Your task to perform on an android device: open chrome privacy settings Image 0: 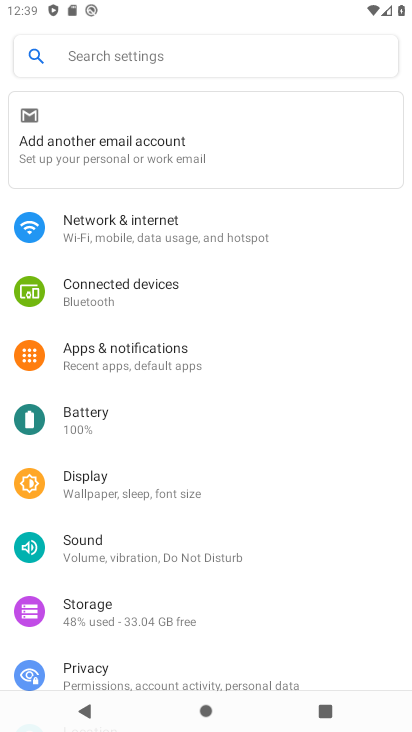
Step 0: press back button
Your task to perform on an android device: open chrome privacy settings Image 1: 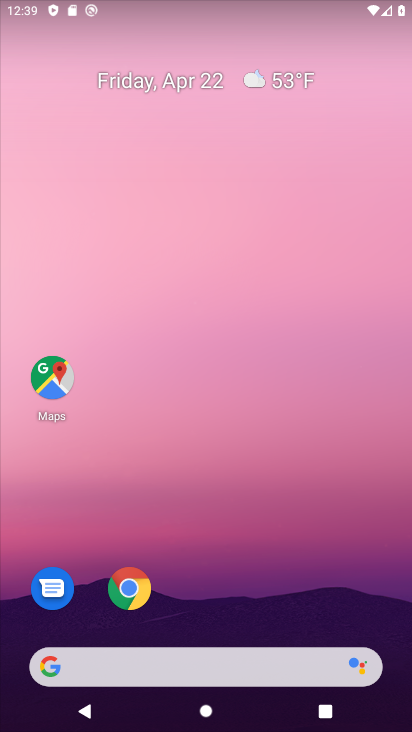
Step 1: click (143, 589)
Your task to perform on an android device: open chrome privacy settings Image 2: 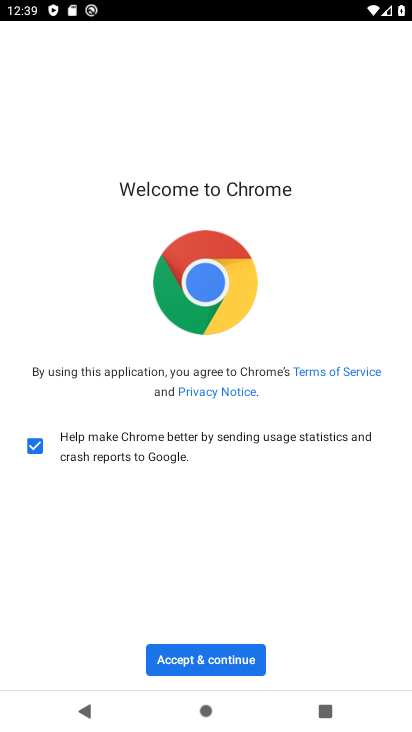
Step 2: click (193, 661)
Your task to perform on an android device: open chrome privacy settings Image 3: 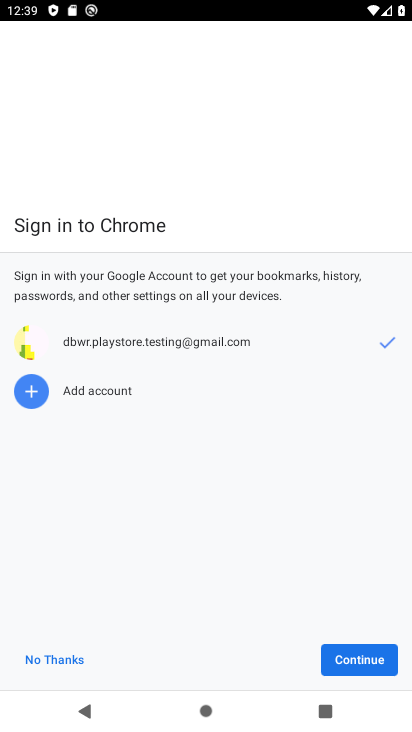
Step 3: click (361, 649)
Your task to perform on an android device: open chrome privacy settings Image 4: 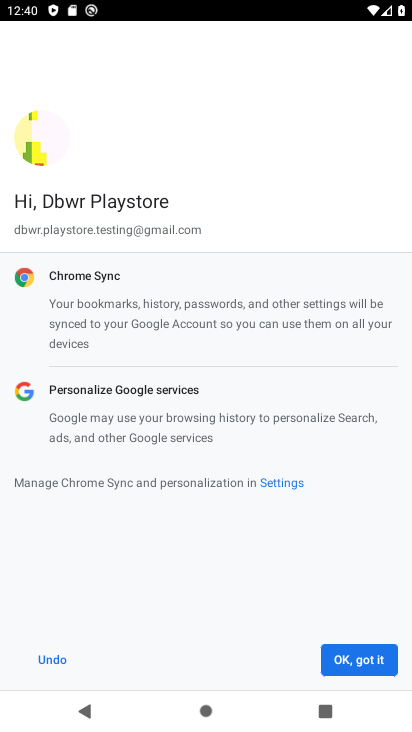
Step 4: click (358, 657)
Your task to perform on an android device: open chrome privacy settings Image 5: 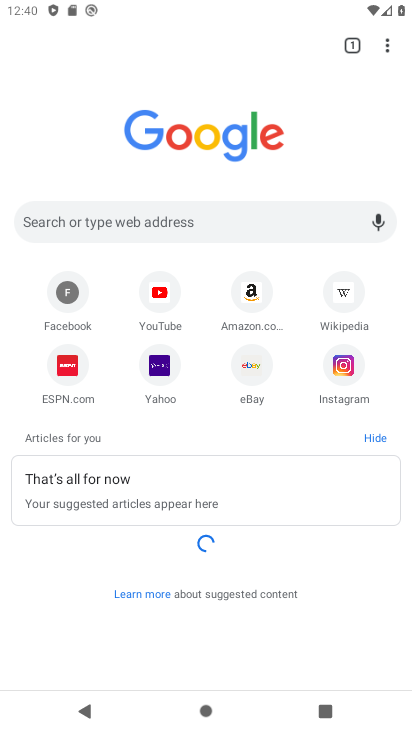
Step 5: drag from (386, 51) to (257, 391)
Your task to perform on an android device: open chrome privacy settings Image 6: 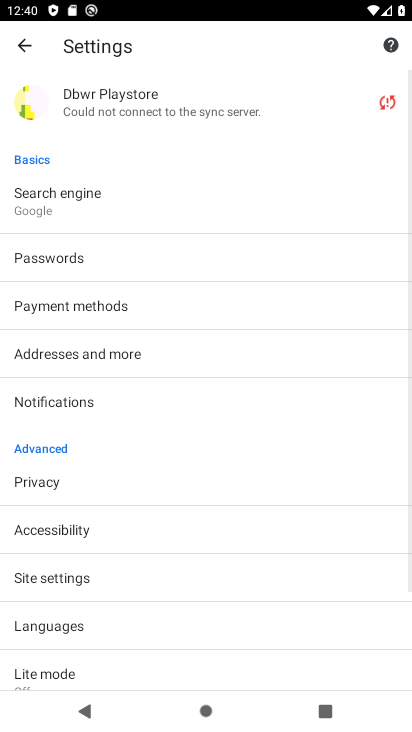
Step 6: click (56, 476)
Your task to perform on an android device: open chrome privacy settings Image 7: 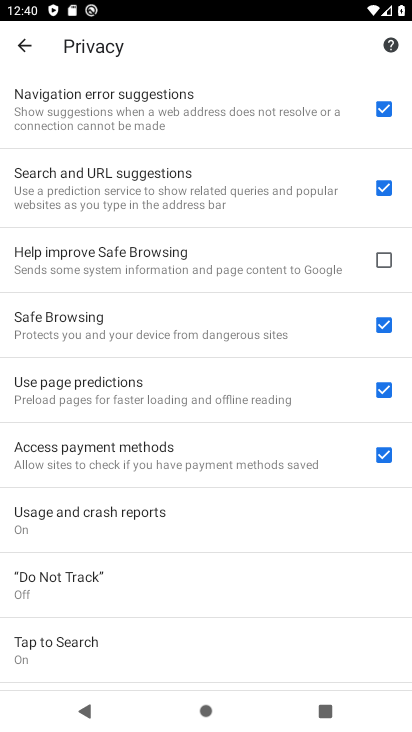
Step 7: task complete